Your task to perform on an android device: check google app version Image 0: 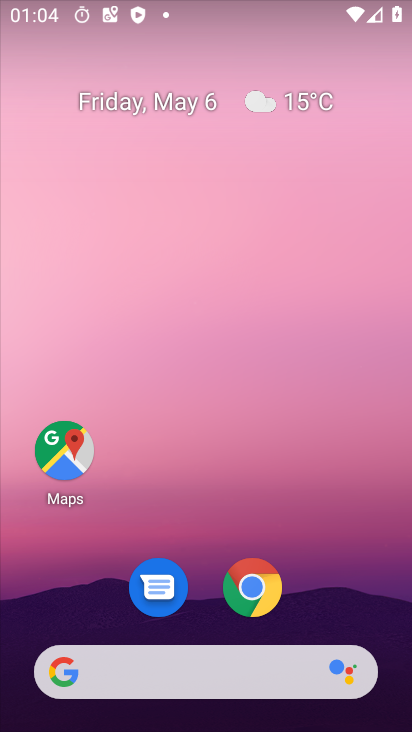
Step 0: drag from (370, 444) to (330, 284)
Your task to perform on an android device: check google app version Image 1: 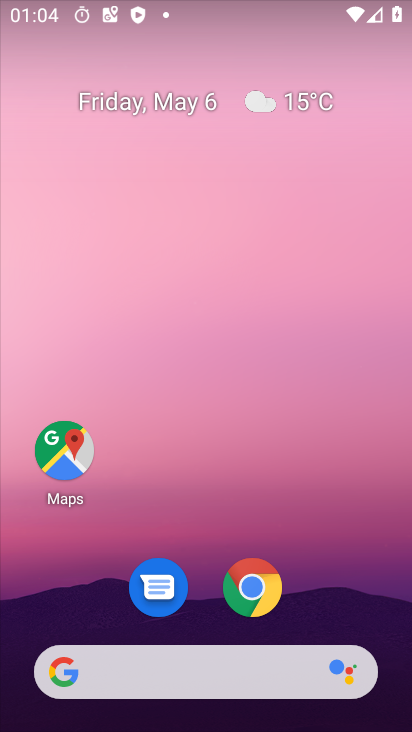
Step 1: drag from (367, 455) to (337, 199)
Your task to perform on an android device: check google app version Image 2: 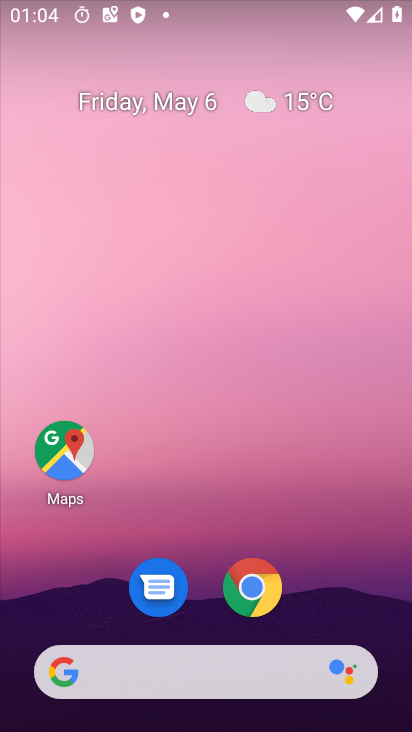
Step 2: drag from (384, 637) to (361, 200)
Your task to perform on an android device: check google app version Image 3: 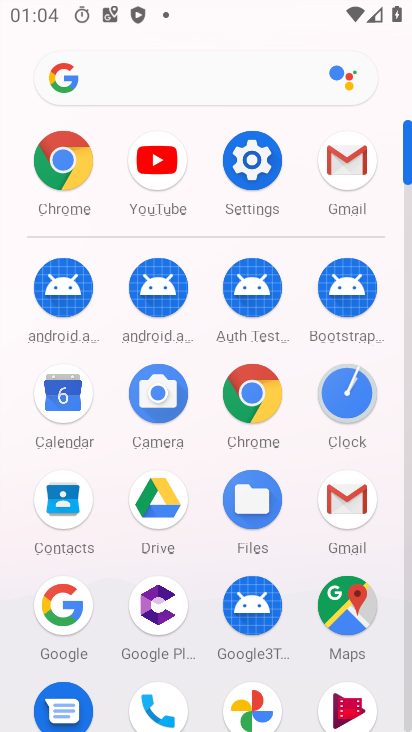
Step 3: click (71, 610)
Your task to perform on an android device: check google app version Image 4: 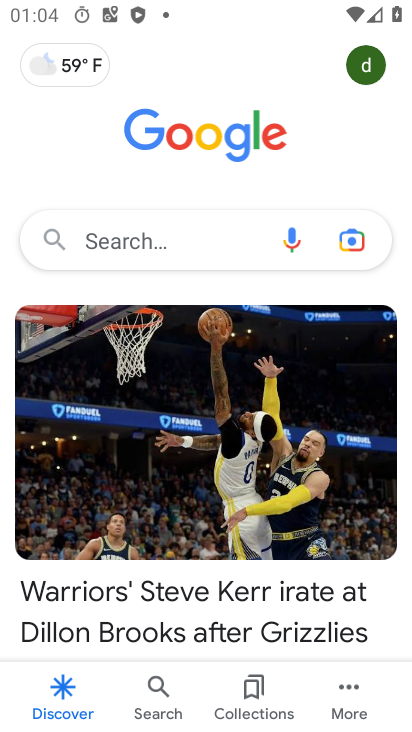
Step 4: click (353, 700)
Your task to perform on an android device: check google app version Image 5: 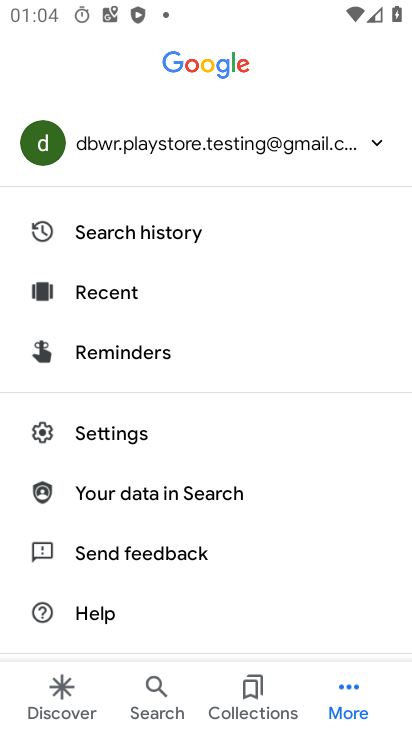
Step 5: click (99, 440)
Your task to perform on an android device: check google app version Image 6: 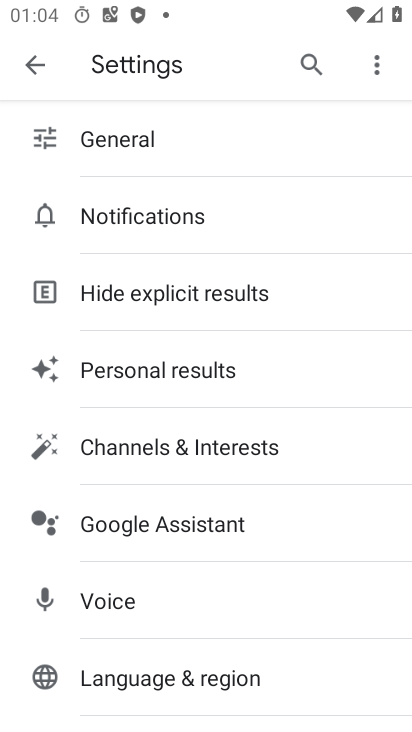
Step 6: drag from (316, 671) to (327, 351)
Your task to perform on an android device: check google app version Image 7: 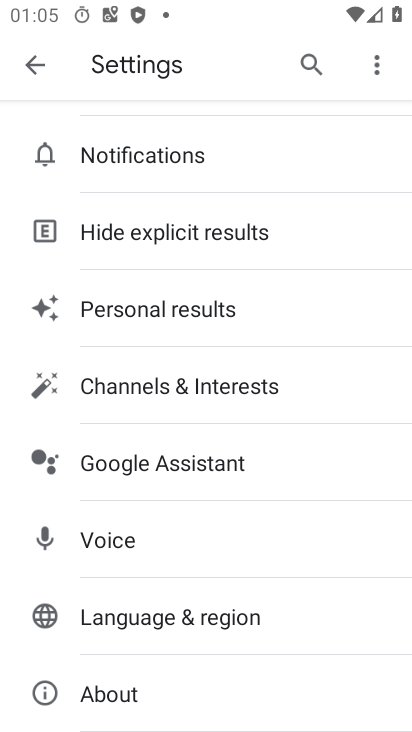
Step 7: click (106, 686)
Your task to perform on an android device: check google app version Image 8: 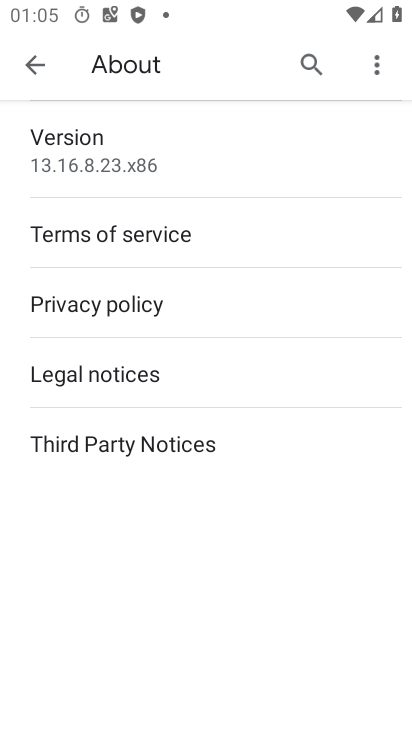
Step 8: click (98, 149)
Your task to perform on an android device: check google app version Image 9: 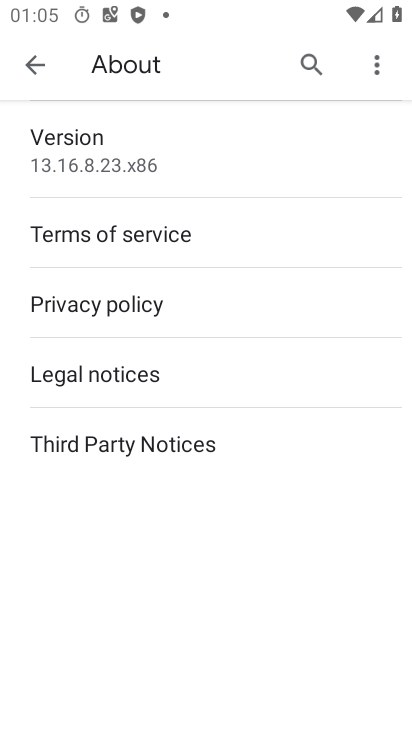
Step 9: task complete